Your task to perform on an android device: find photos in the google photos app Image 0: 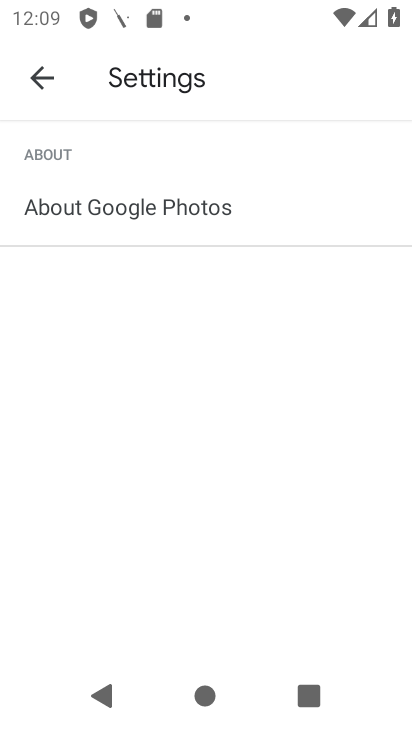
Step 0: click (42, 73)
Your task to perform on an android device: find photos in the google photos app Image 1: 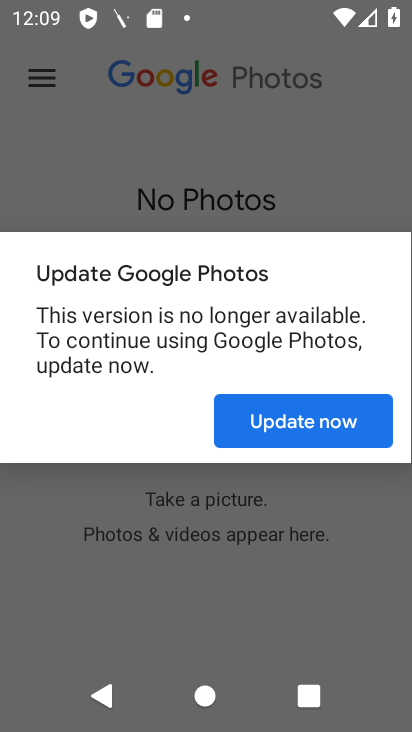
Step 1: click (255, 400)
Your task to perform on an android device: find photos in the google photos app Image 2: 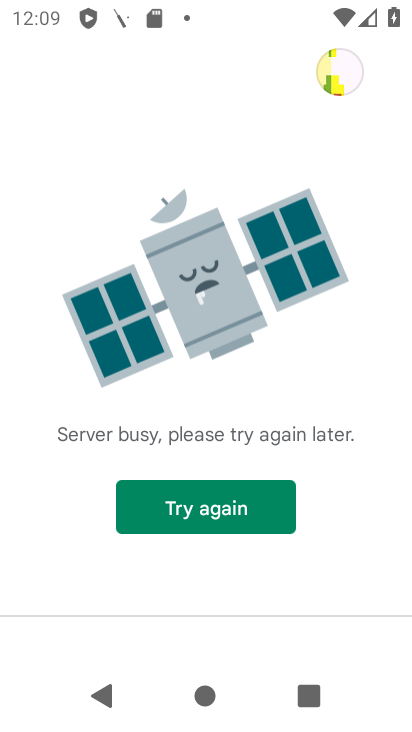
Step 2: task complete